Your task to perform on an android device: Open battery settings Image 0: 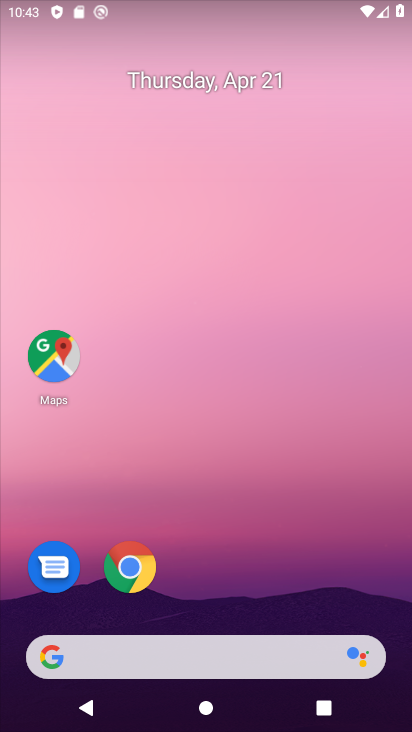
Step 0: drag from (191, 574) to (178, 0)
Your task to perform on an android device: Open battery settings Image 1: 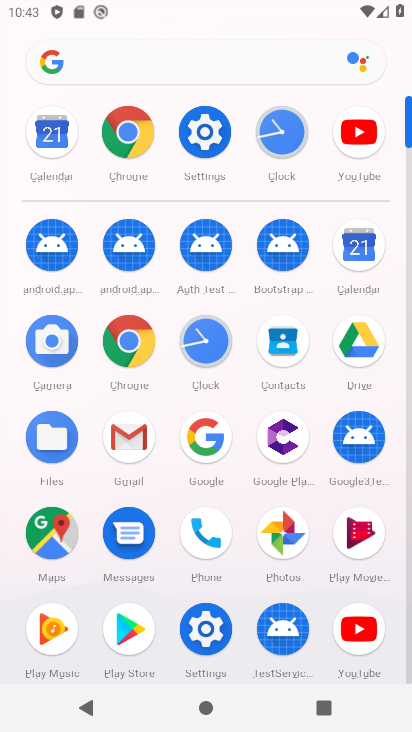
Step 1: click (205, 152)
Your task to perform on an android device: Open battery settings Image 2: 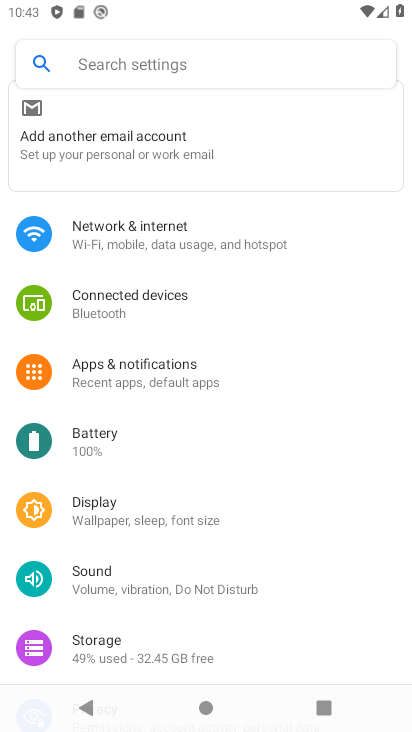
Step 2: click (133, 451)
Your task to perform on an android device: Open battery settings Image 3: 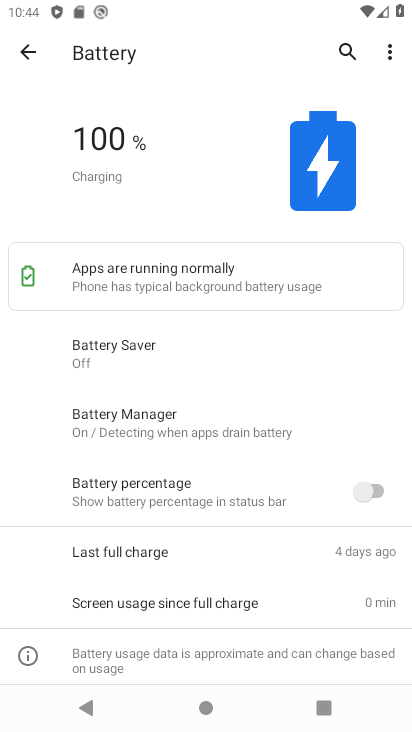
Step 3: task complete